Your task to perform on an android device: find photos in the google photos app Image 0: 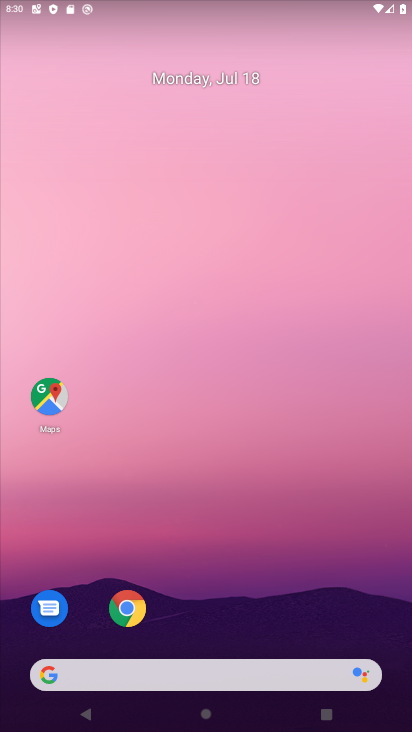
Step 0: drag from (257, 728) to (253, 175)
Your task to perform on an android device: find photos in the google photos app Image 1: 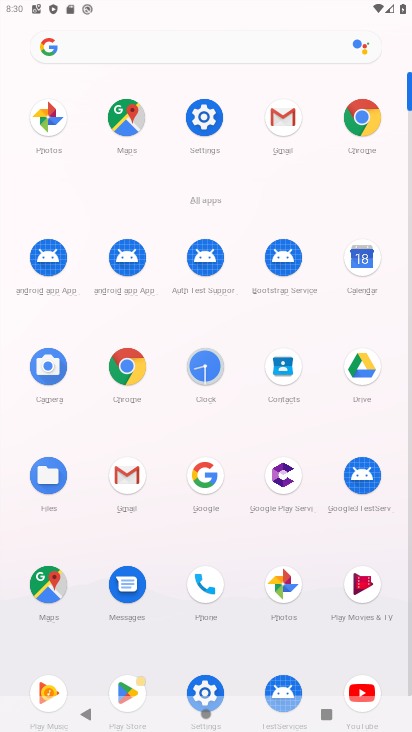
Step 1: click (287, 575)
Your task to perform on an android device: find photos in the google photos app Image 2: 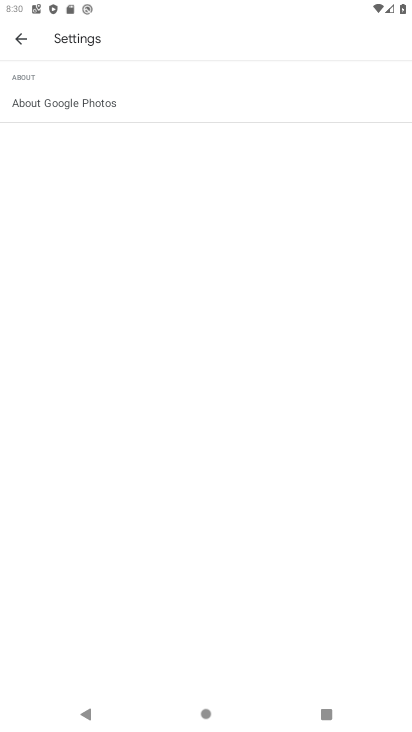
Step 2: click (20, 30)
Your task to perform on an android device: find photos in the google photos app Image 3: 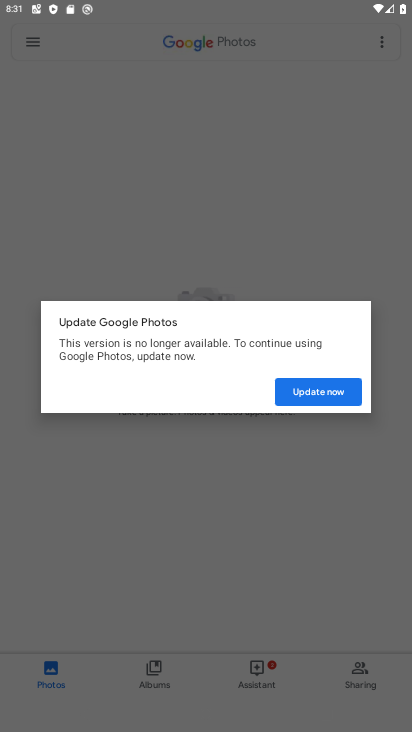
Step 3: task complete